Your task to perform on an android device: Is it going to rain today? Image 0: 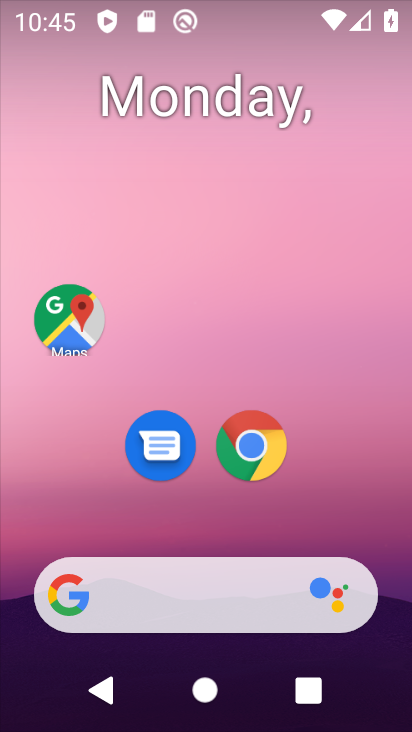
Step 0: click (172, 596)
Your task to perform on an android device: Is it going to rain today? Image 1: 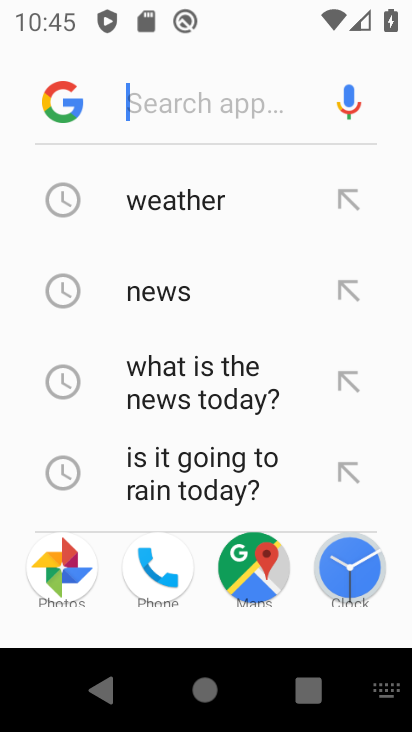
Step 1: click (182, 218)
Your task to perform on an android device: Is it going to rain today? Image 2: 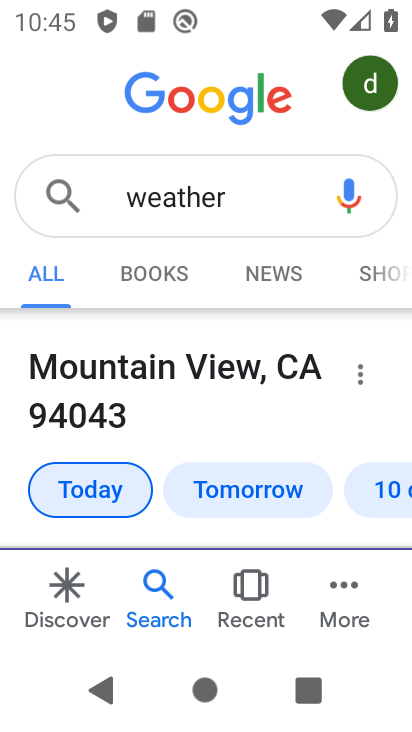
Step 2: click (102, 492)
Your task to perform on an android device: Is it going to rain today? Image 3: 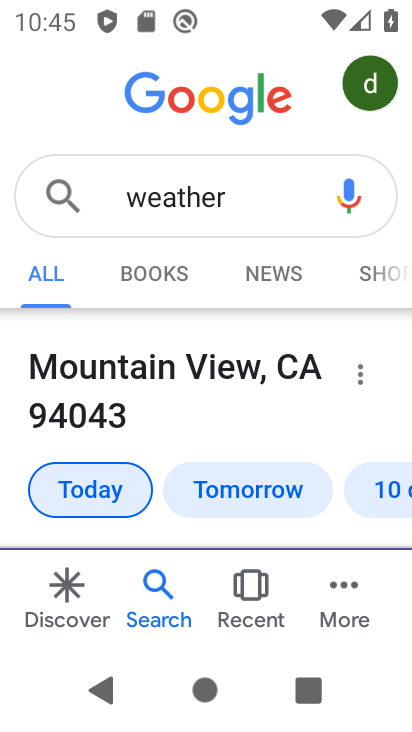
Step 3: task complete